Your task to perform on an android device: turn on wifi Image 0: 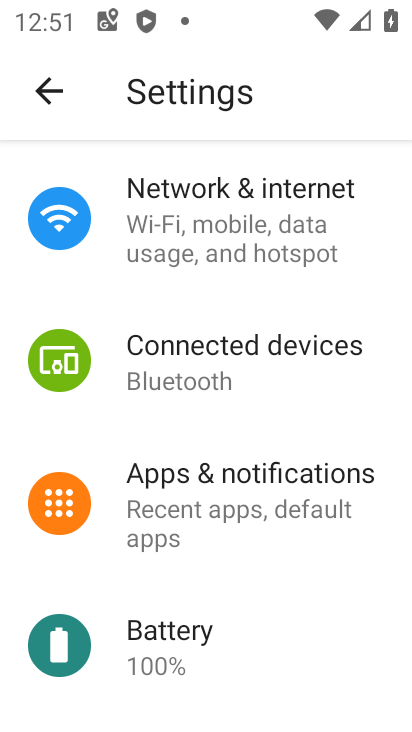
Step 0: click (196, 249)
Your task to perform on an android device: turn on wifi Image 1: 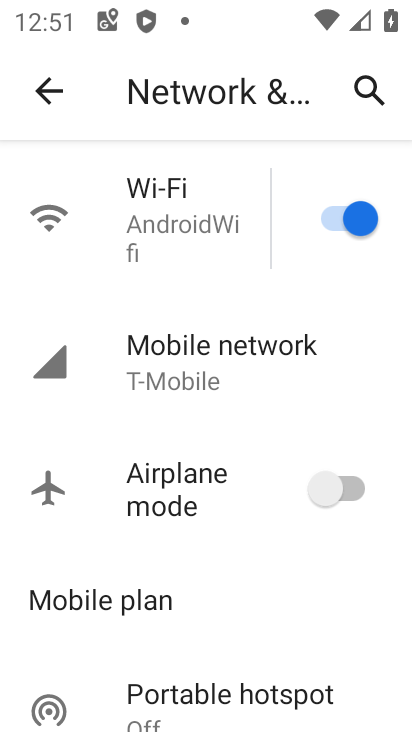
Step 1: task complete